Your task to perform on an android device: make emails show in primary in the gmail app Image 0: 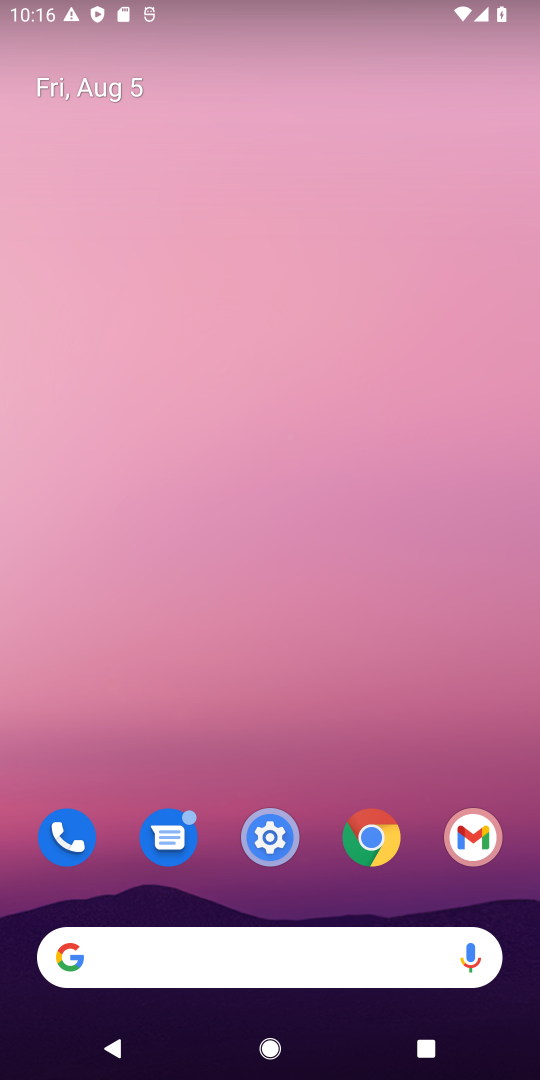
Step 0: click (473, 841)
Your task to perform on an android device: make emails show in primary in the gmail app Image 1: 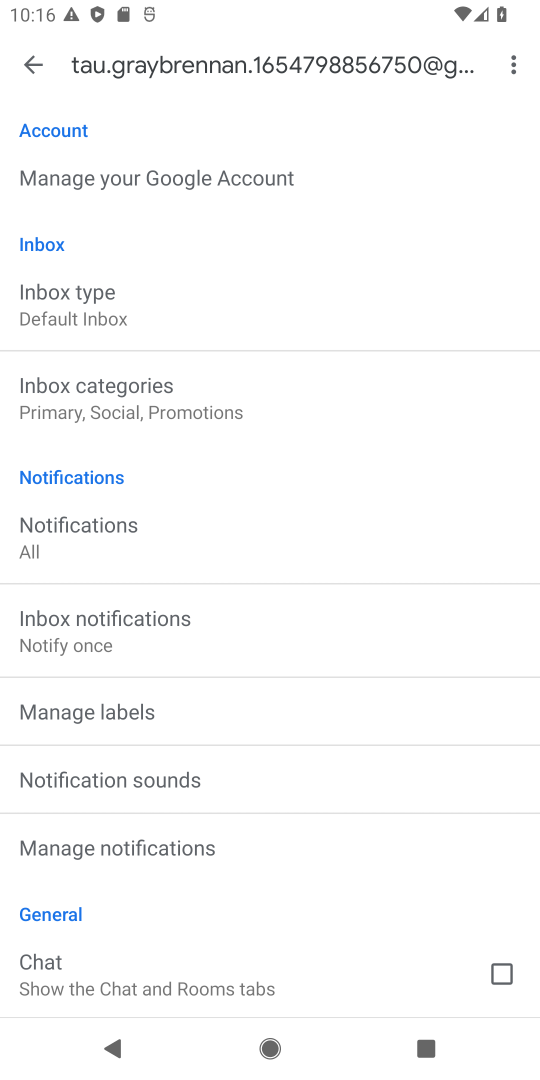
Step 1: click (175, 404)
Your task to perform on an android device: make emails show in primary in the gmail app Image 2: 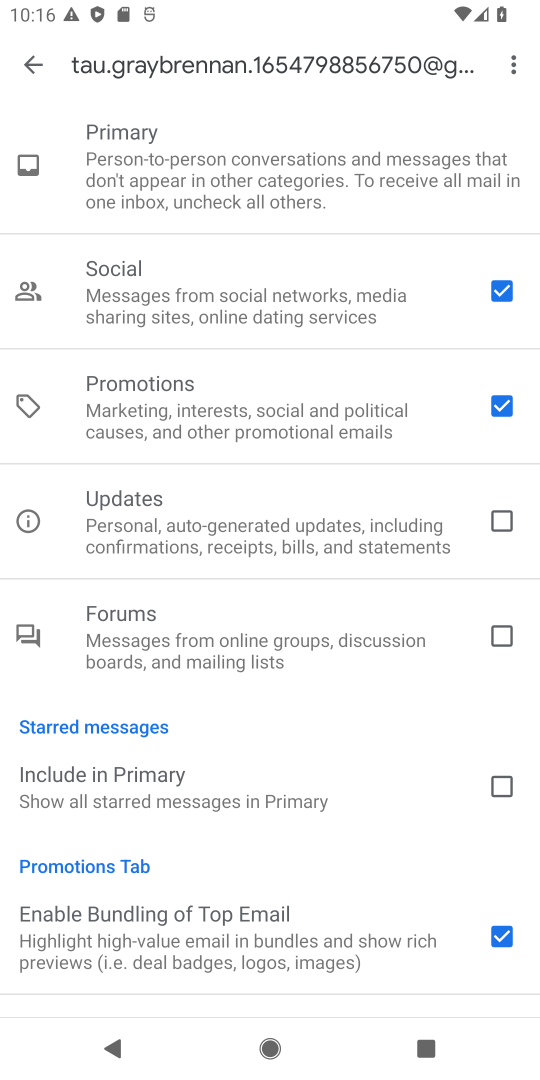
Step 2: click (507, 402)
Your task to perform on an android device: make emails show in primary in the gmail app Image 3: 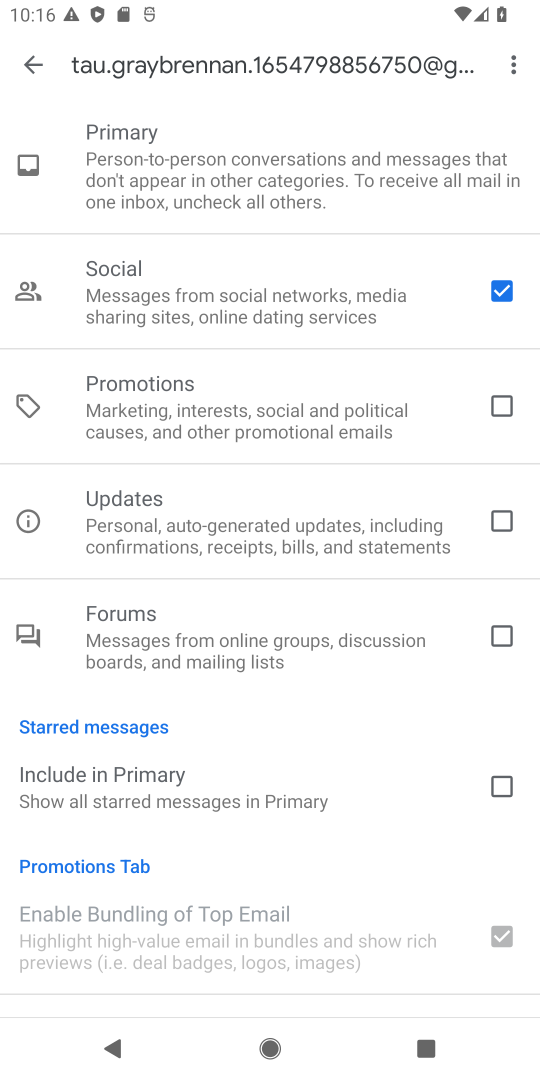
Step 3: click (505, 285)
Your task to perform on an android device: make emails show in primary in the gmail app Image 4: 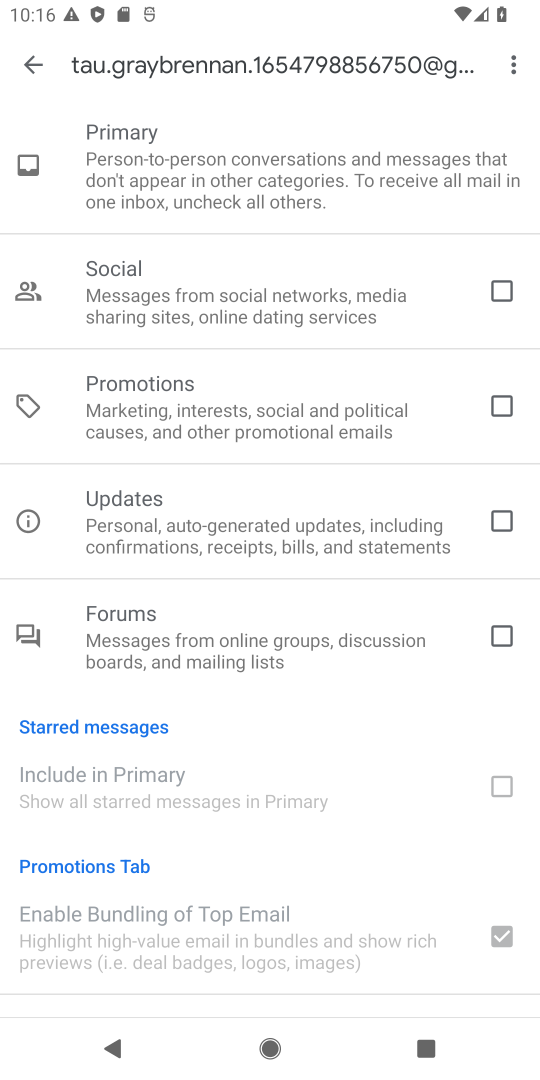
Step 4: task complete